Your task to perform on an android device: Search for pizza restaurants on Maps Image 0: 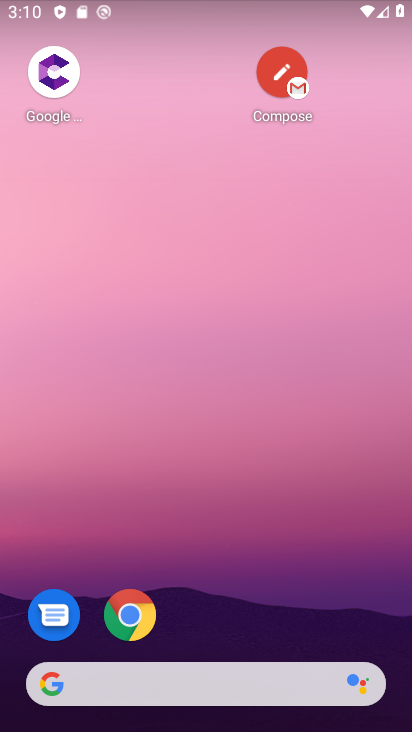
Step 0: drag from (215, 359) to (145, 94)
Your task to perform on an android device: Search for pizza restaurants on Maps Image 1: 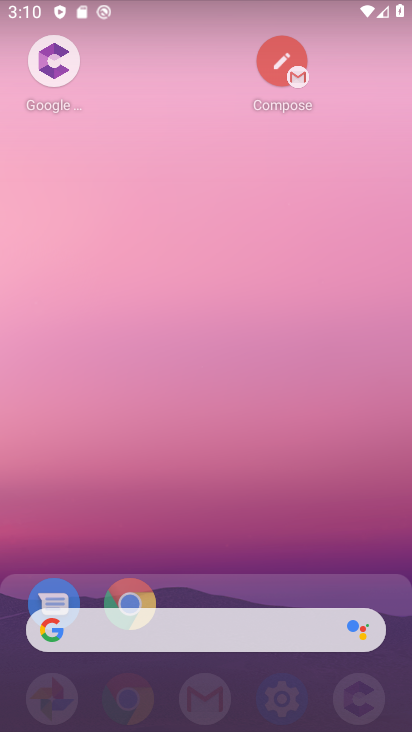
Step 1: drag from (164, 309) to (120, 27)
Your task to perform on an android device: Search for pizza restaurants on Maps Image 2: 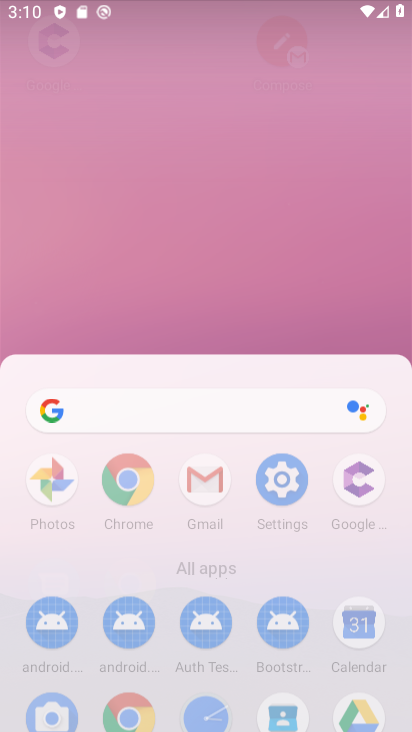
Step 2: drag from (289, 536) to (154, 52)
Your task to perform on an android device: Search for pizza restaurants on Maps Image 3: 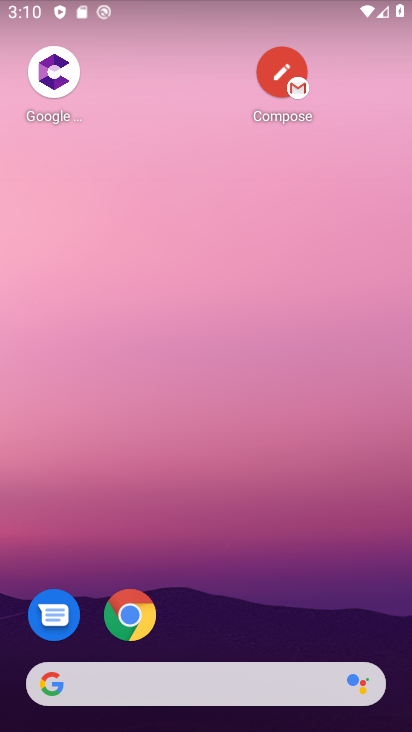
Step 3: drag from (194, 387) to (205, 13)
Your task to perform on an android device: Search for pizza restaurants on Maps Image 4: 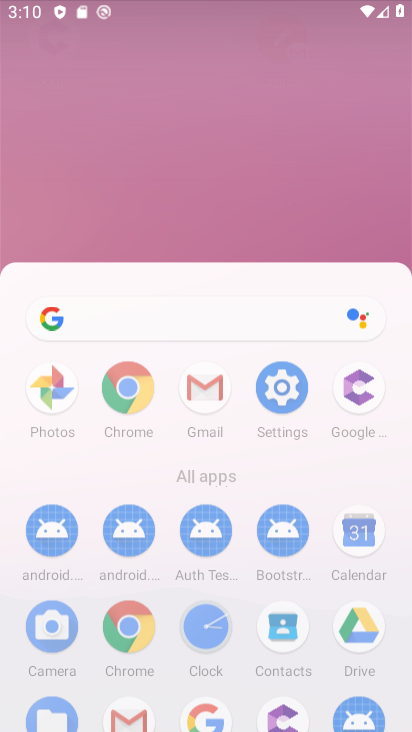
Step 4: drag from (323, 622) to (225, 22)
Your task to perform on an android device: Search for pizza restaurants on Maps Image 5: 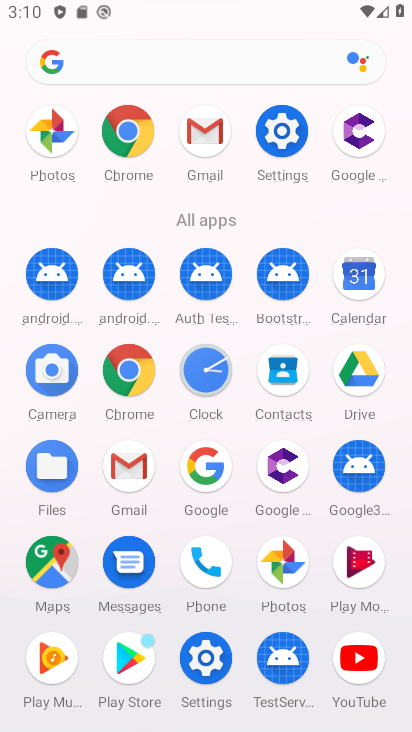
Step 5: click (41, 556)
Your task to perform on an android device: Search for pizza restaurants on Maps Image 6: 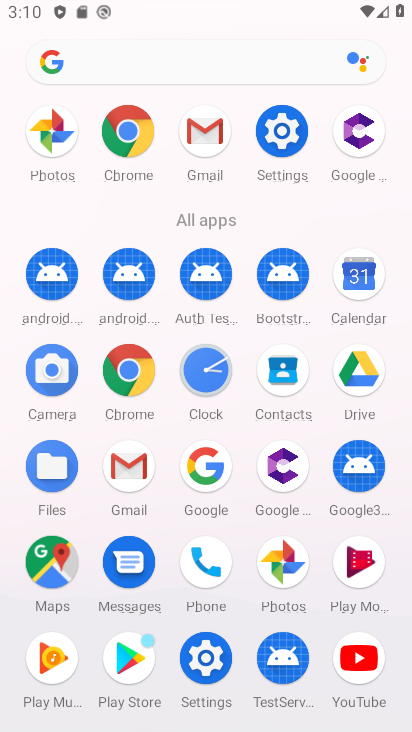
Step 6: click (36, 549)
Your task to perform on an android device: Search for pizza restaurants on Maps Image 7: 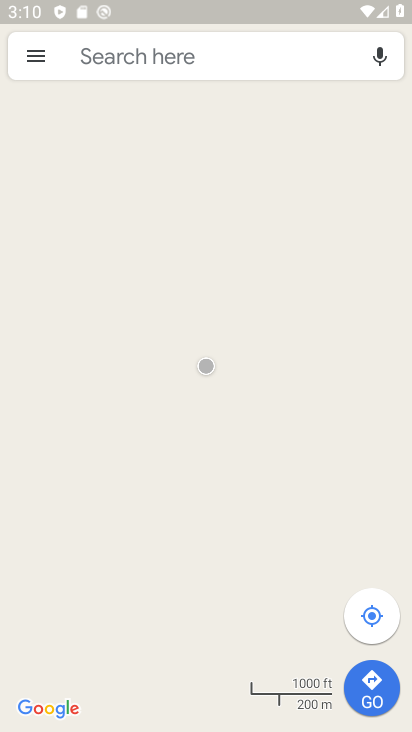
Step 7: click (94, 55)
Your task to perform on an android device: Search for pizza restaurants on Maps Image 8: 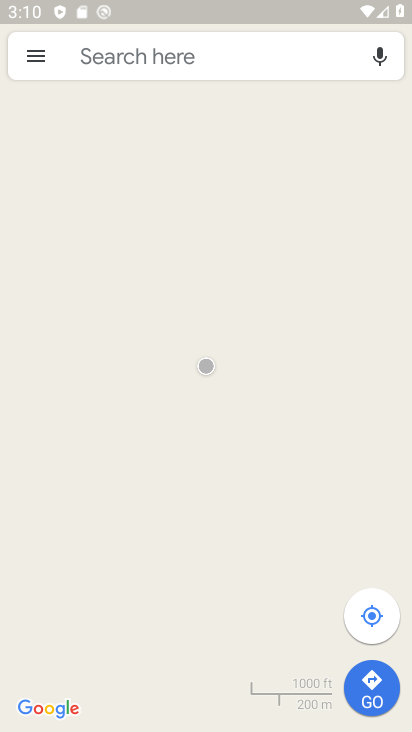
Step 8: click (91, 62)
Your task to perform on an android device: Search for pizza restaurants on Maps Image 9: 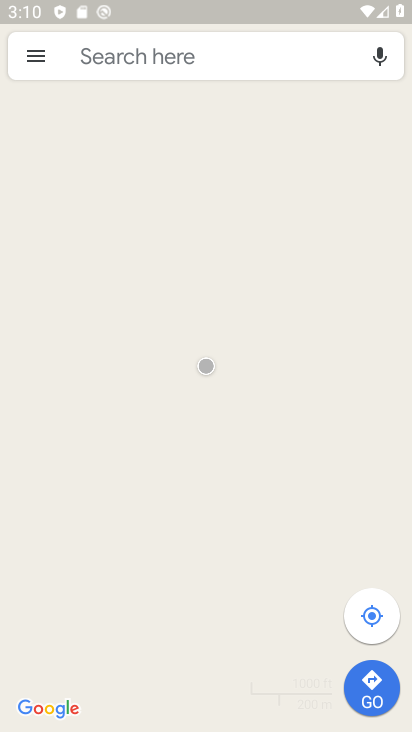
Step 9: click (86, 65)
Your task to perform on an android device: Search for pizza restaurants on Maps Image 10: 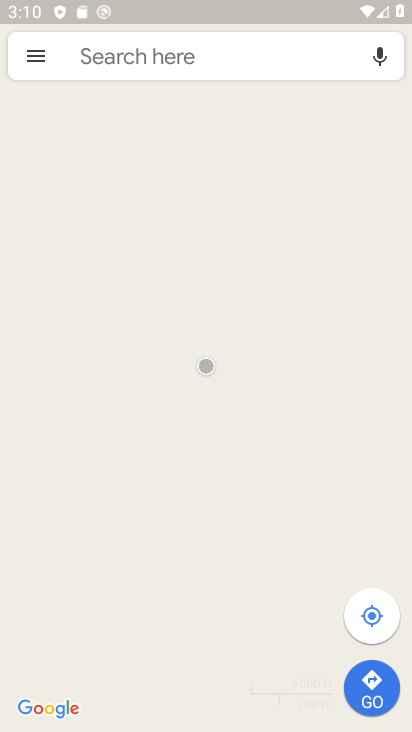
Step 10: click (86, 65)
Your task to perform on an android device: Search for pizza restaurants on Maps Image 11: 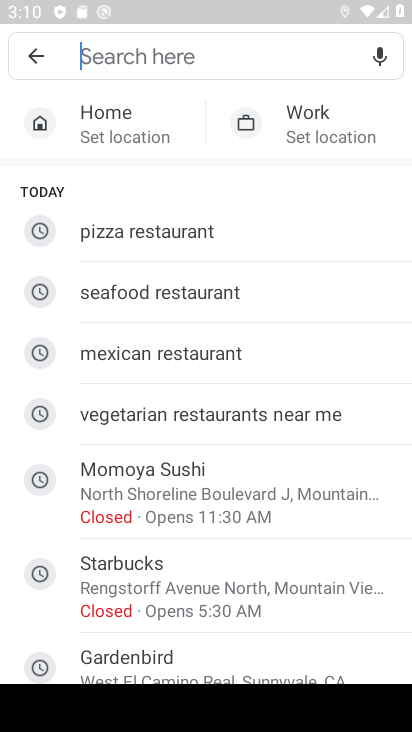
Step 11: click (102, 226)
Your task to perform on an android device: Search for pizza restaurants on Maps Image 12: 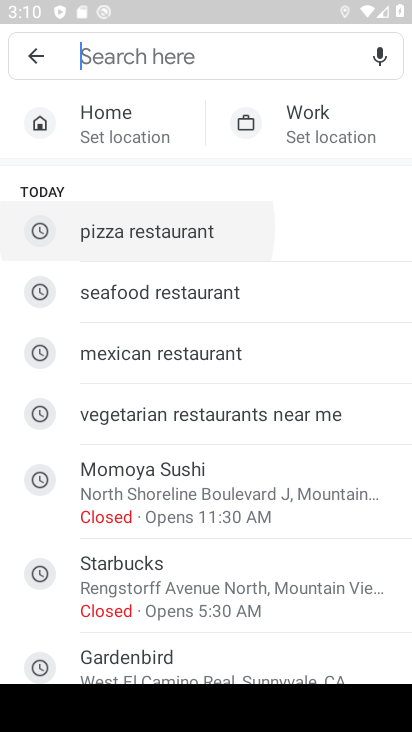
Step 12: click (107, 229)
Your task to perform on an android device: Search for pizza restaurants on Maps Image 13: 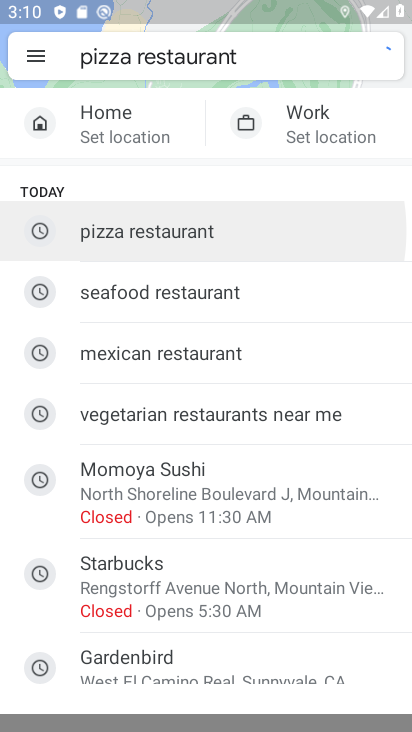
Step 13: click (119, 231)
Your task to perform on an android device: Search for pizza restaurants on Maps Image 14: 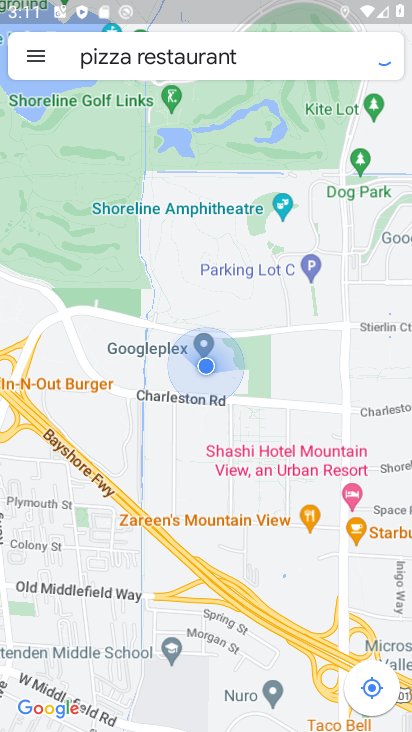
Step 14: task complete